Your task to perform on an android device: change keyboard looks Image 0: 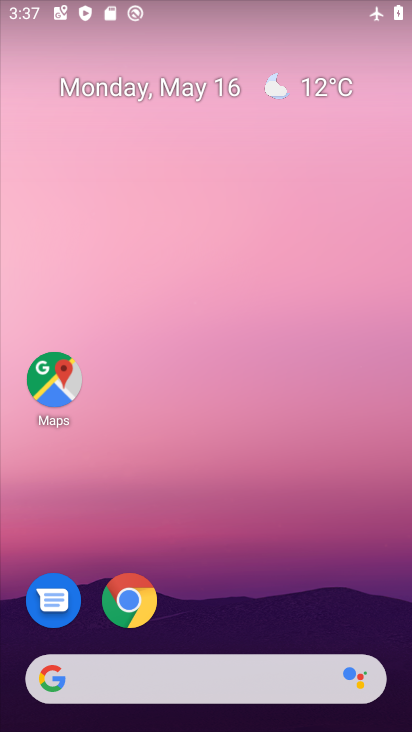
Step 0: drag from (205, 651) to (268, 14)
Your task to perform on an android device: change keyboard looks Image 1: 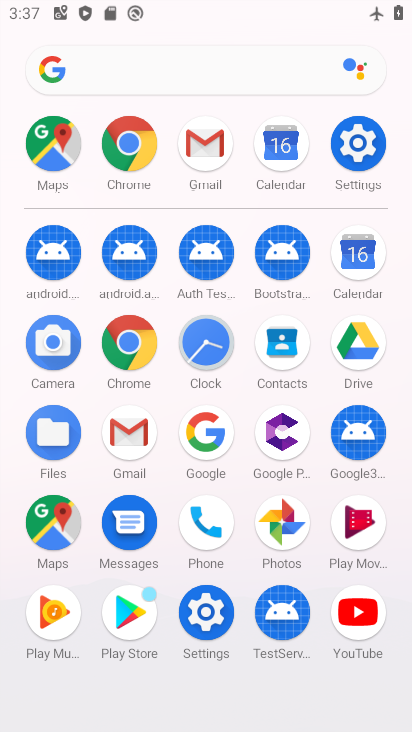
Step 1: click (357, 146)
Your task to perform on an android device: change keyboard looks Image 2: 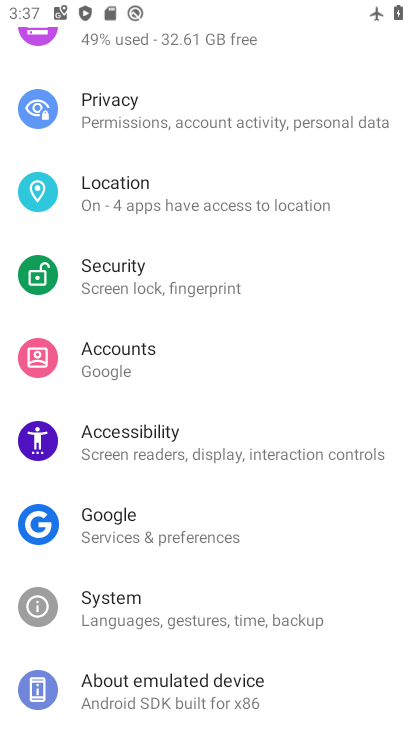
Step 2: click (122, 602)
Your task to perform on an android device: change keyboard looks Image 3: 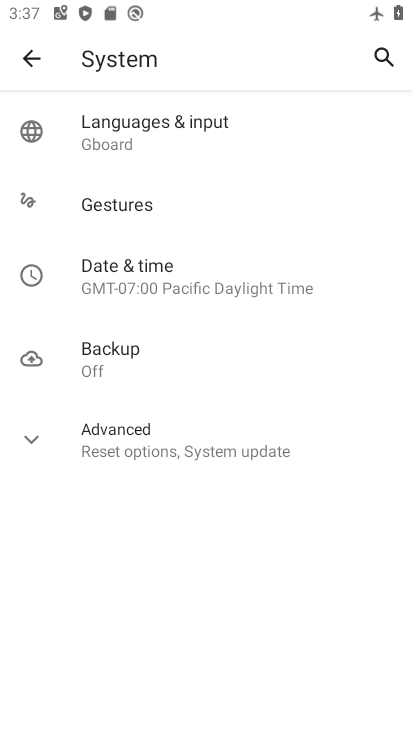
Step 3: click (121, 134)
Your task to perform on an android device: change keyboard looks Image 4: 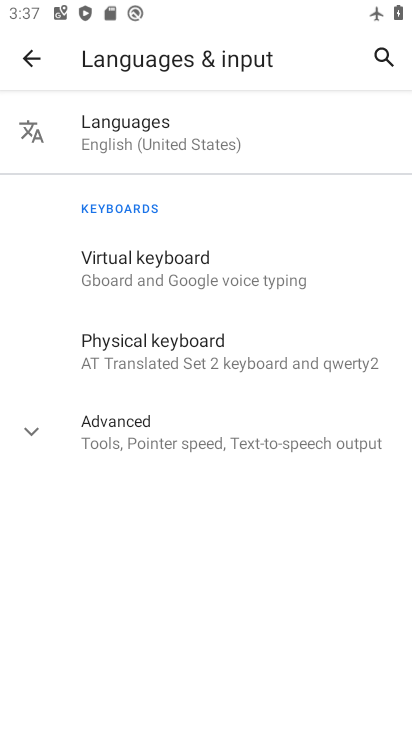
Step 4: click (106, 243)
Your task to perform on an android device: change keyboard looks Image 5: 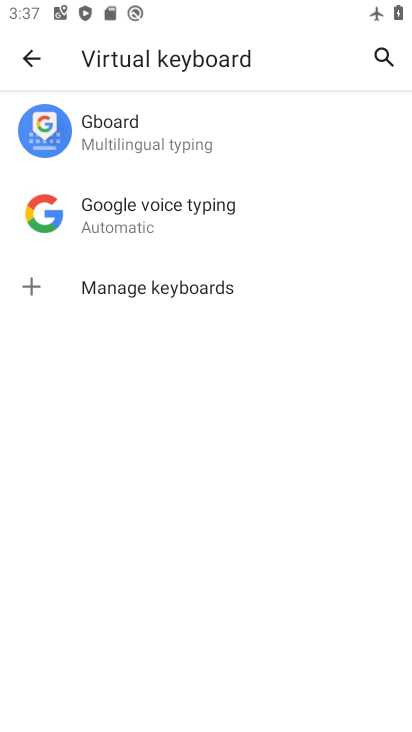
Step 5: click (87, 124)
Your task to perform on an android device: change keyboard looks Image 6: 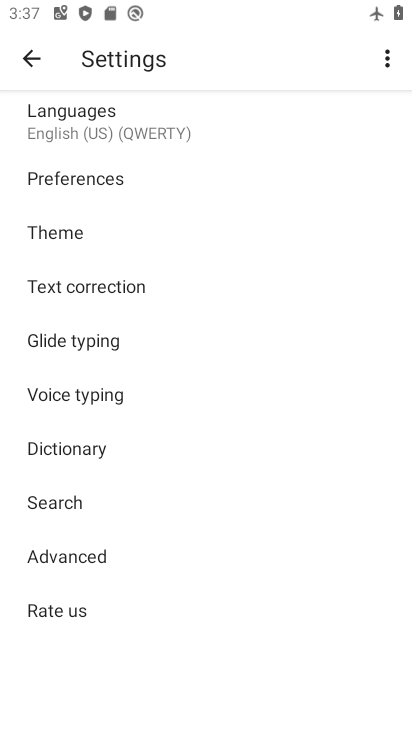
Step 6: click (56, 218)
Your task to perform on an android device: change keyboard looks Image 7: 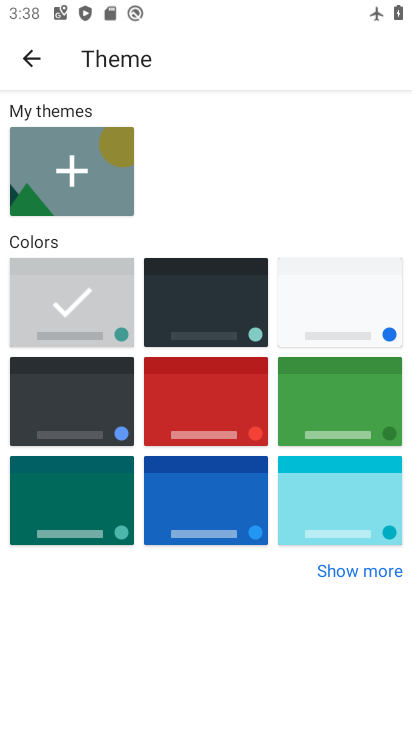
Step 7: task complete